Your task to perform on an android device: stop showing notifications on the lock screen Image 0: 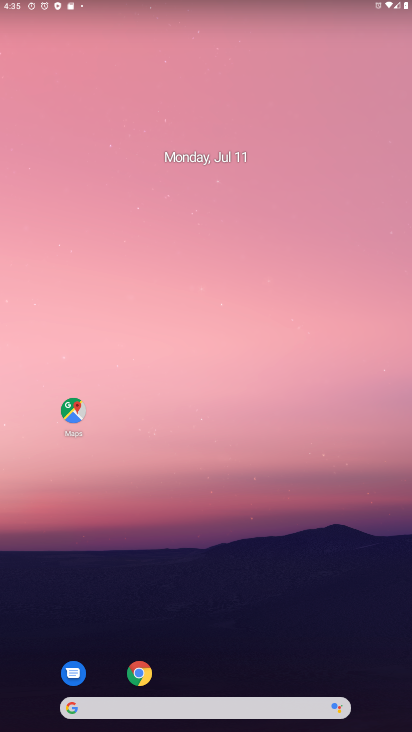
Step 0: drag from (221, 621) to (214, 161)
Your task to perform on an android device: stop showing notifications on the lock screen Image 1: 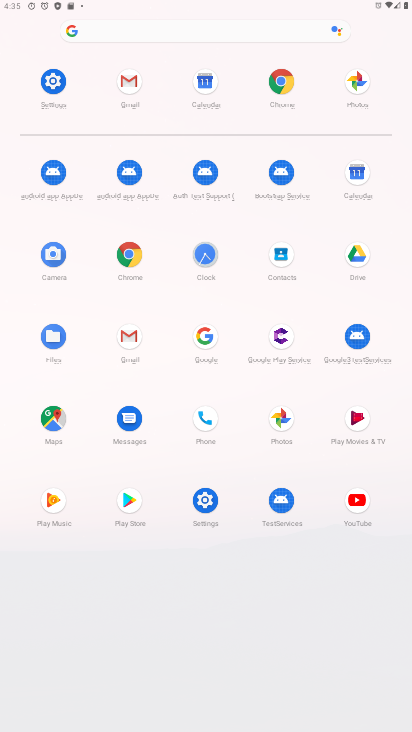
Step 1: click (205, 504)
Your task to perform on an android device: stop showing notifications on the lock screen Image 2: 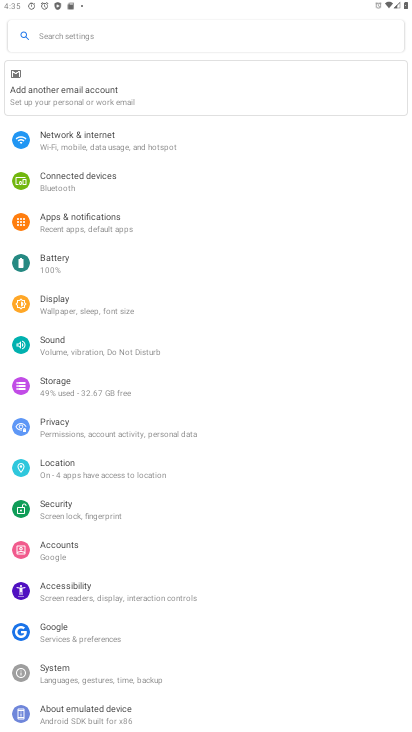
Step 2: drag from (167, 591) to (255, 277)
Your task to perform on an android device: stop showing notifications on the lock screen Image 3: 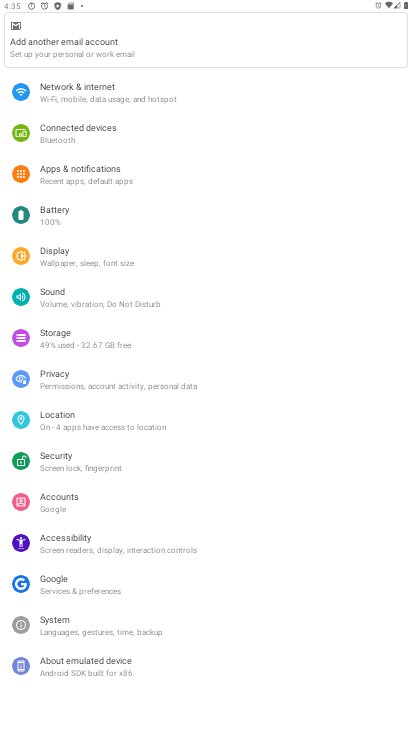
Step 3: click (74, 176)
Your task to perform on an android device: stop showing notifications on the lock screen Image 4: 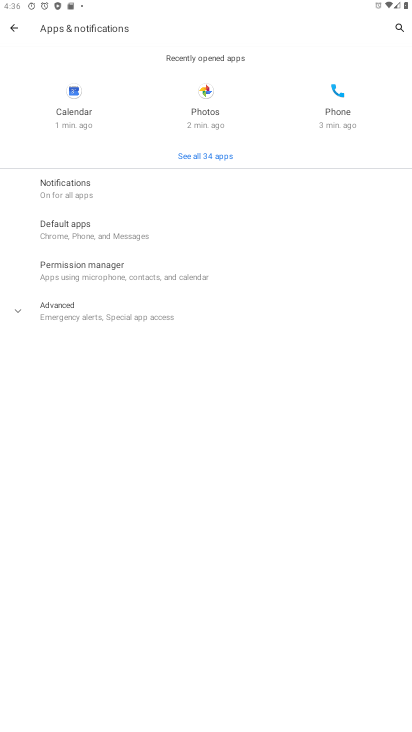
Step 4: click (80, 181)
Your task to perform on an android device: stop showing notifications on the lock screen Image 5: 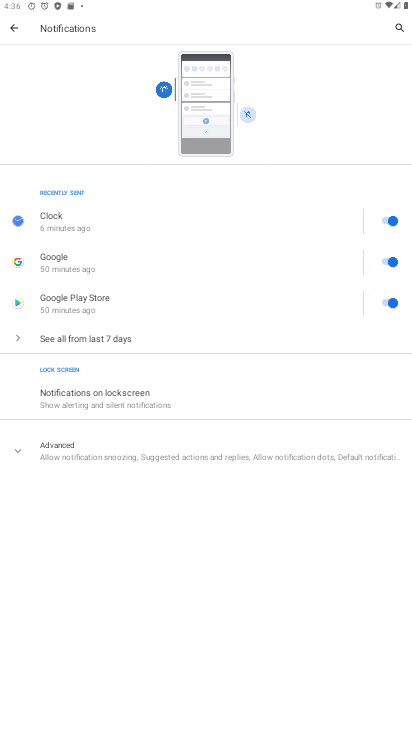
Step 5: click (112, 454)
Your task to perform on an android device: stop showing notifications on the lock screen Image 6: 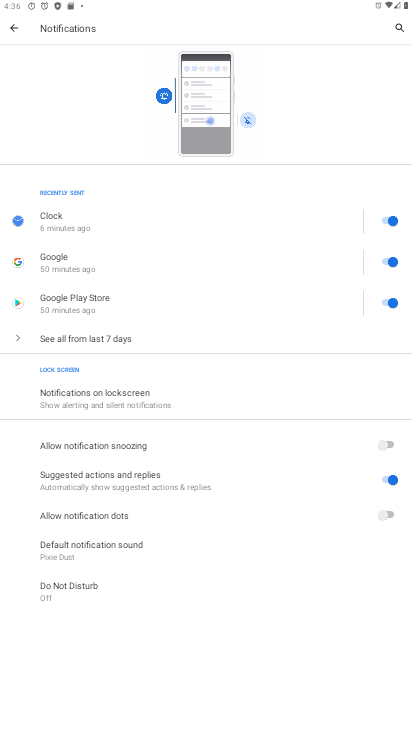
Step 6: click (97, 402)
Your task to perform on an android device: stop showing notifications on the lock screen Image 7: 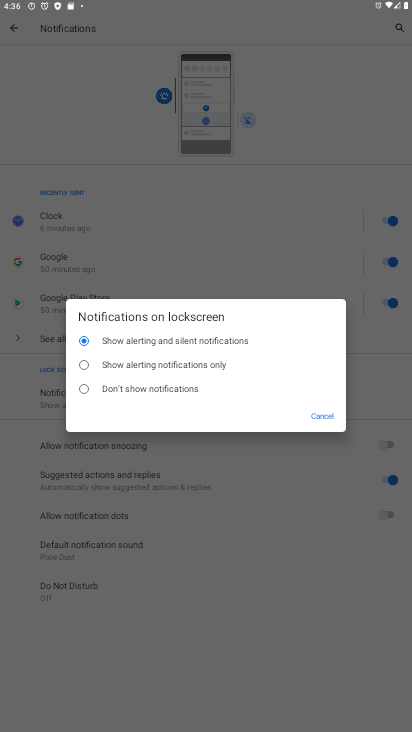
Step 7: click (111, 387)
Your task to perform on an android device: stop showing notifications on the lock screen Image 8: 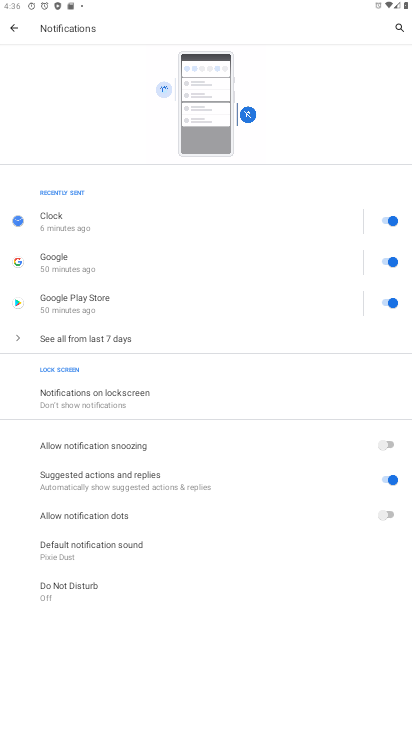
Step 8: task complete